Your task to perform on an android device: Add bose soundlink mini to the cart on walmart Image 0: 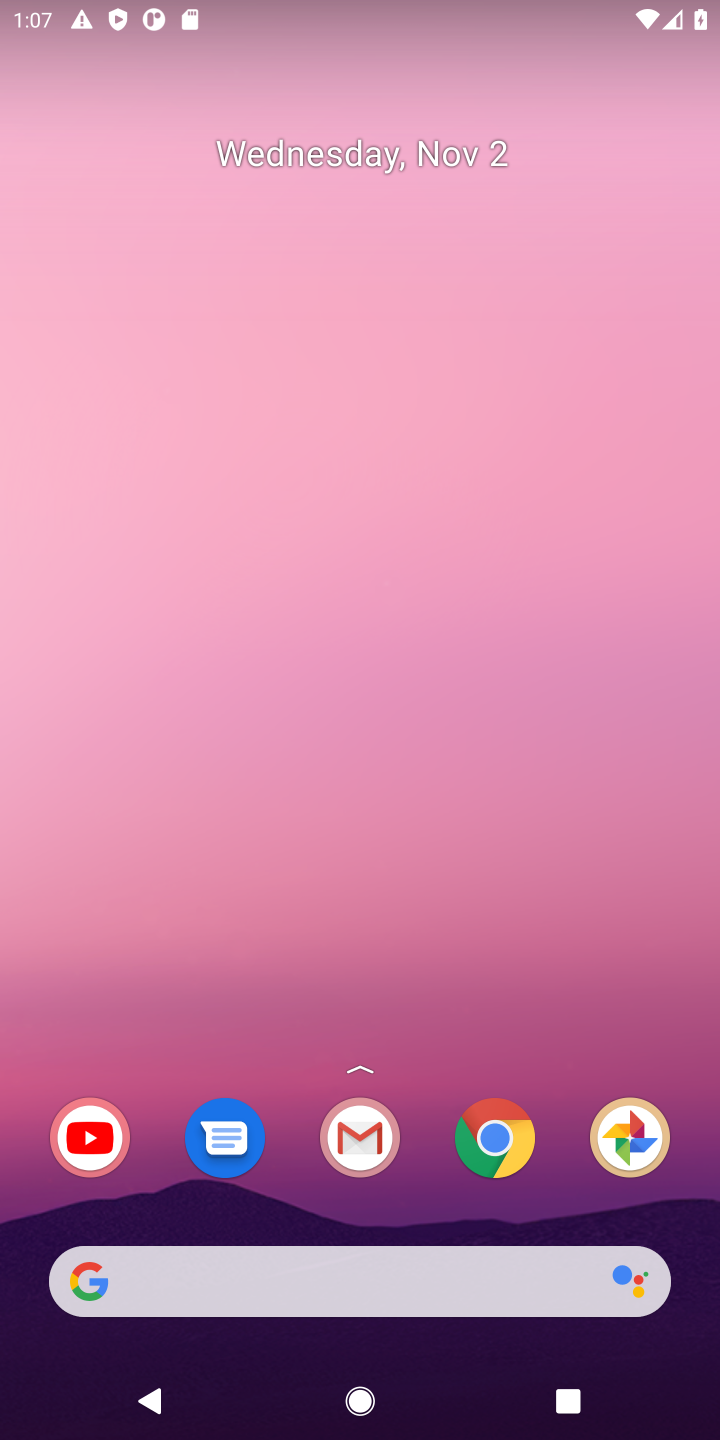
Step 0: press home button
Your task to perform on an android device: Add bose soundlink mini to the cart on walmart Image 1: 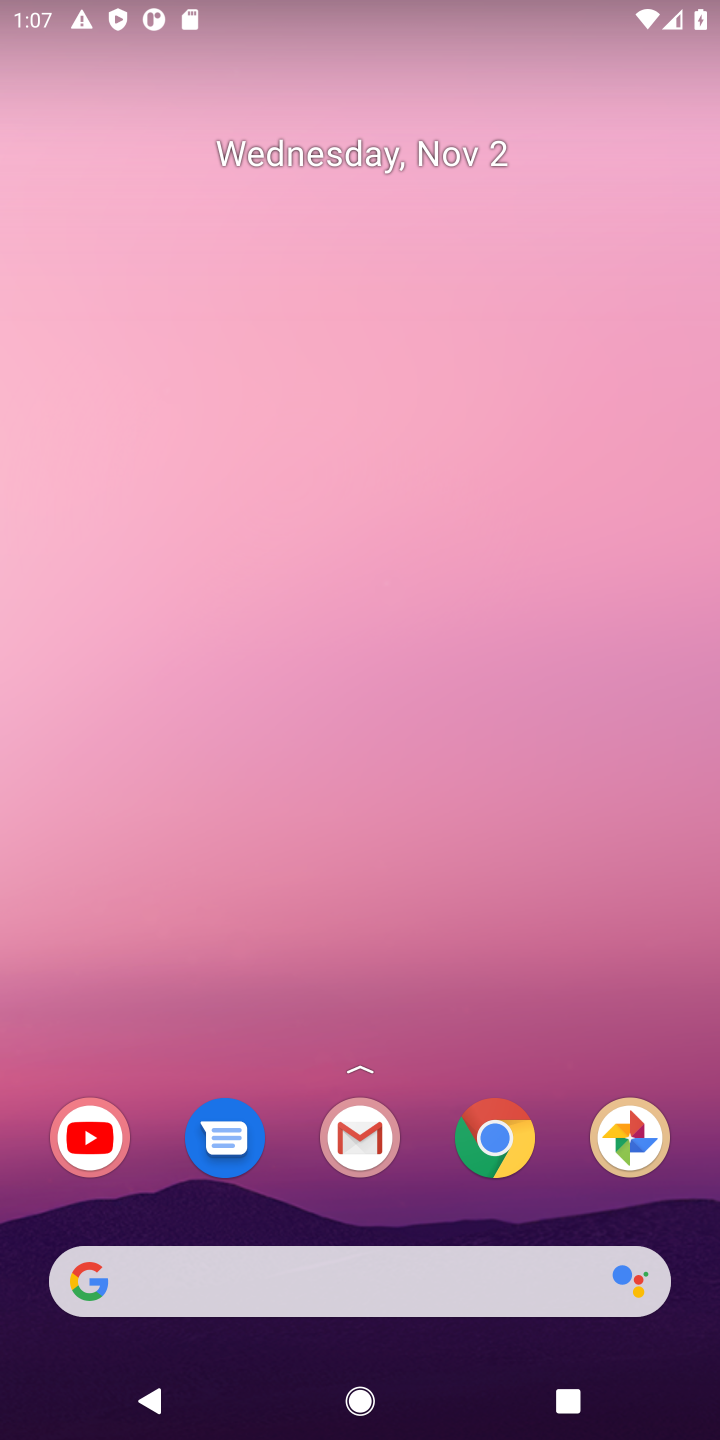
Step 1: click (133, 1279)
Your task to perform on an android device: Add bose soundlink mini to the cart on walmart Image 2: 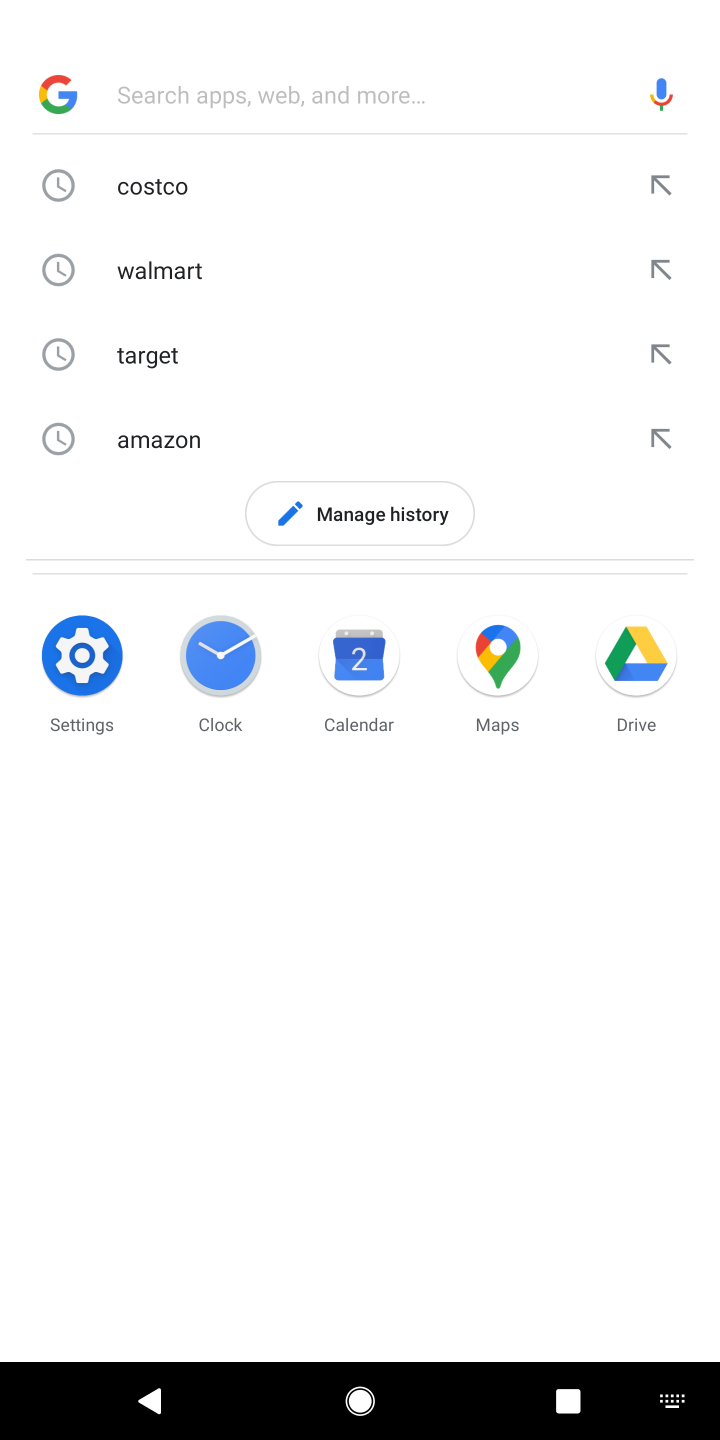
Step 2: press enter
Your task to perform on an android device: Add bose soundlink mini to the cart on walmart Image 3: 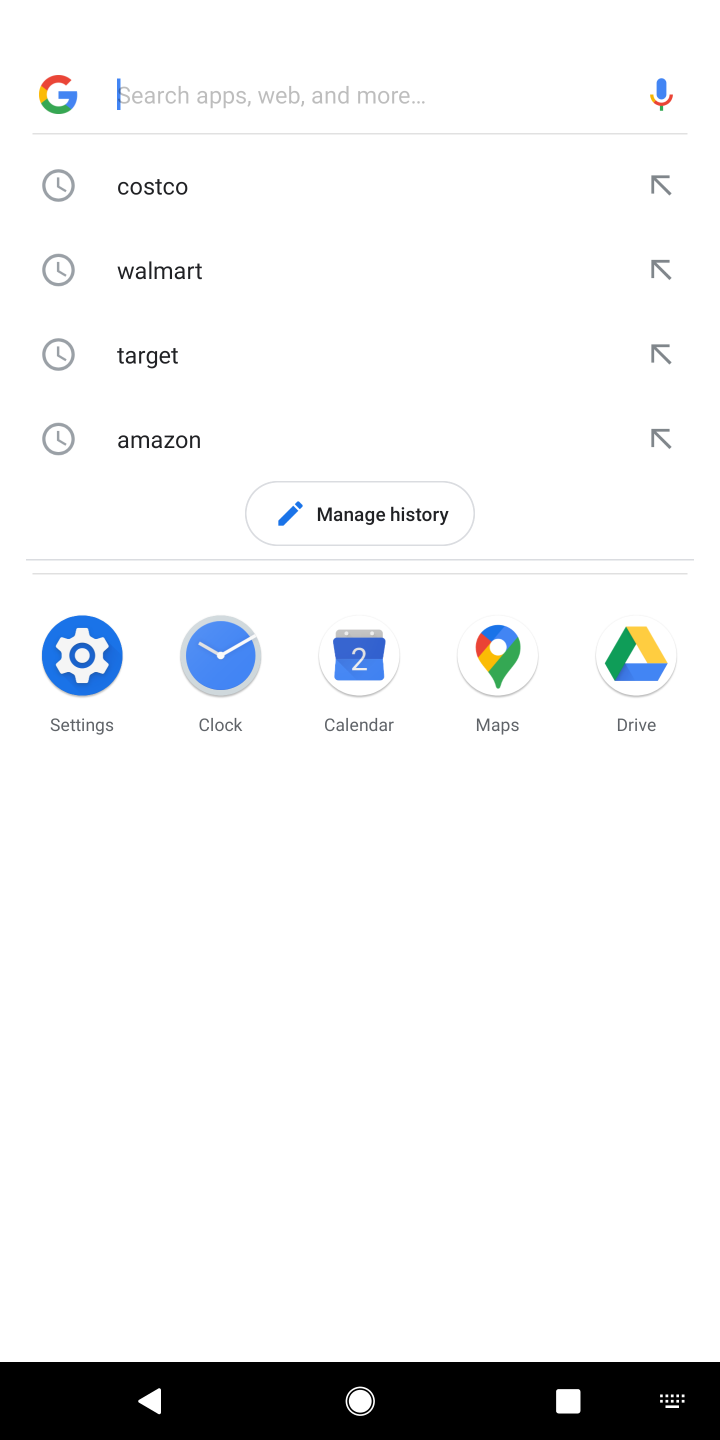
Step 3: type "walmart"
Your task to perform on an android device: Add bose soundlink mini to the cart on walmart Image 4: 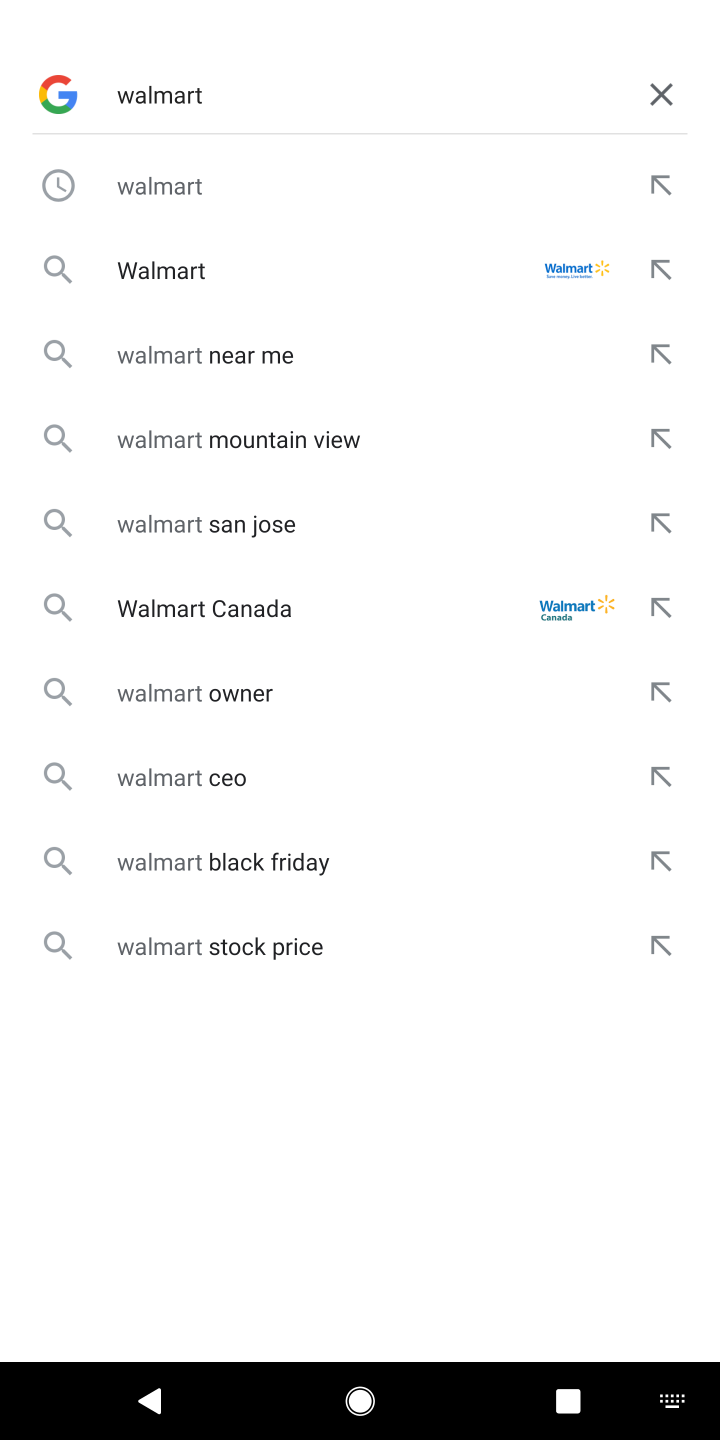
Step 4: press enter
Your task to perform on an android device: Add bose soundlink mini to the cart on walmart Image 5: 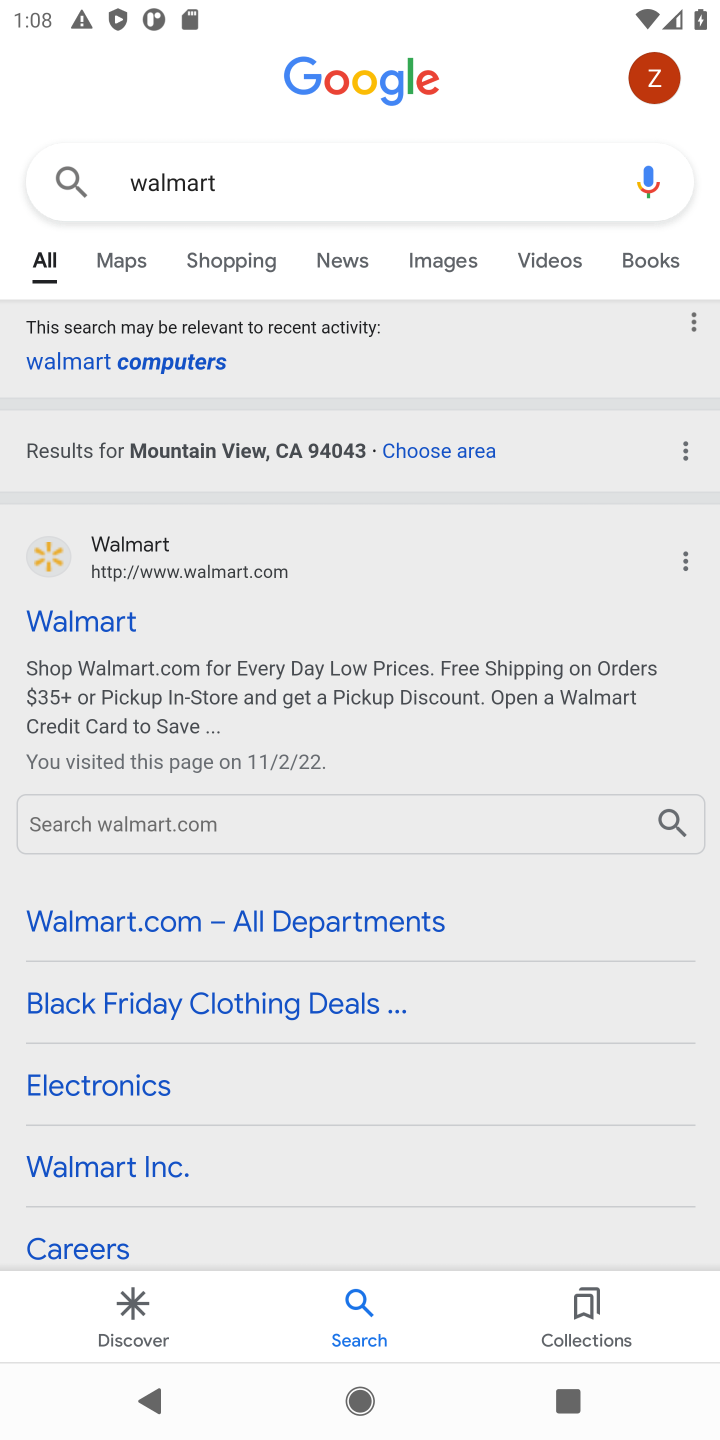
Step 5: click (88, 619)
Your task to perform on an android device: Add bose soundlink mini to the cart on walmart Image 6: 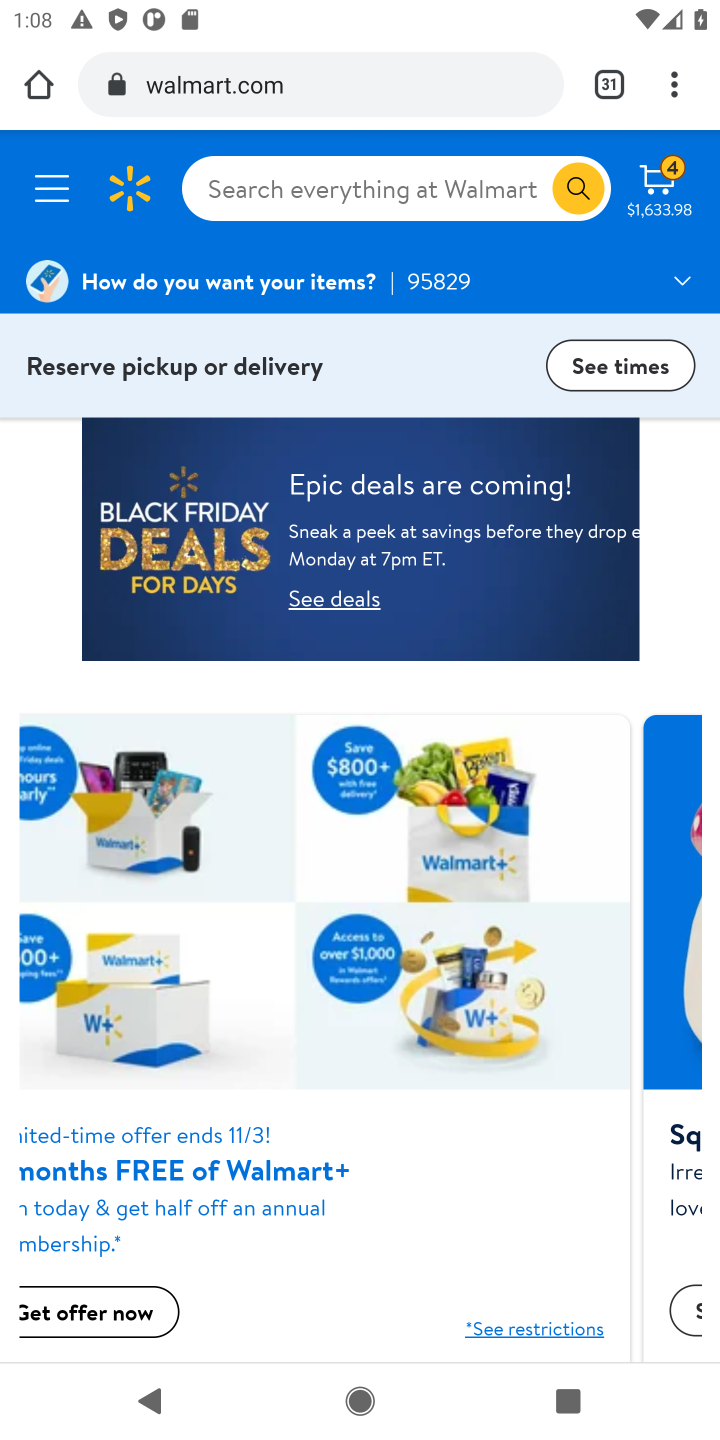
Step 6: click (268, 184)
Your task to perform on an android device: Add bose soundlink mini to the cart on walmart Image 7: 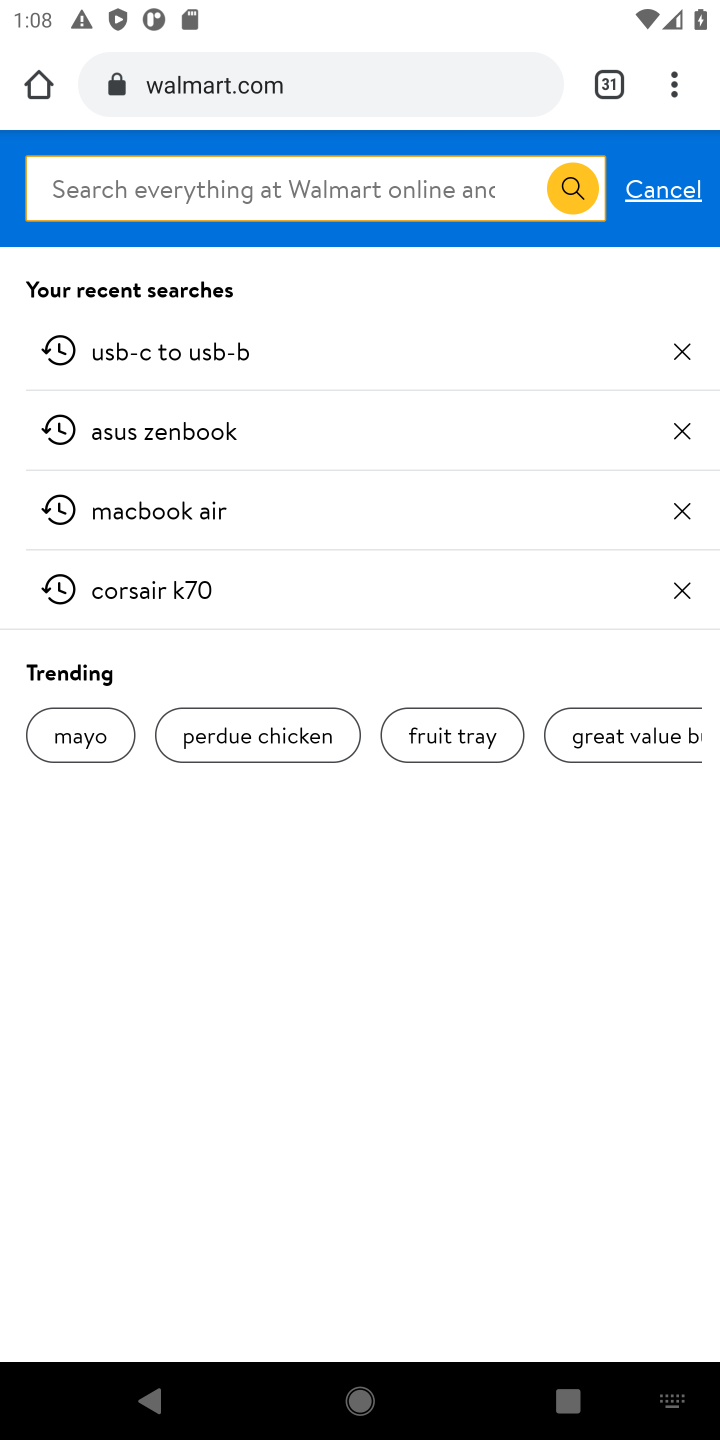
Step 7: type "bose soundlink mini "
Your task to perform on an android device: Add bose soundlink mini to the cart on walmart Image 8: 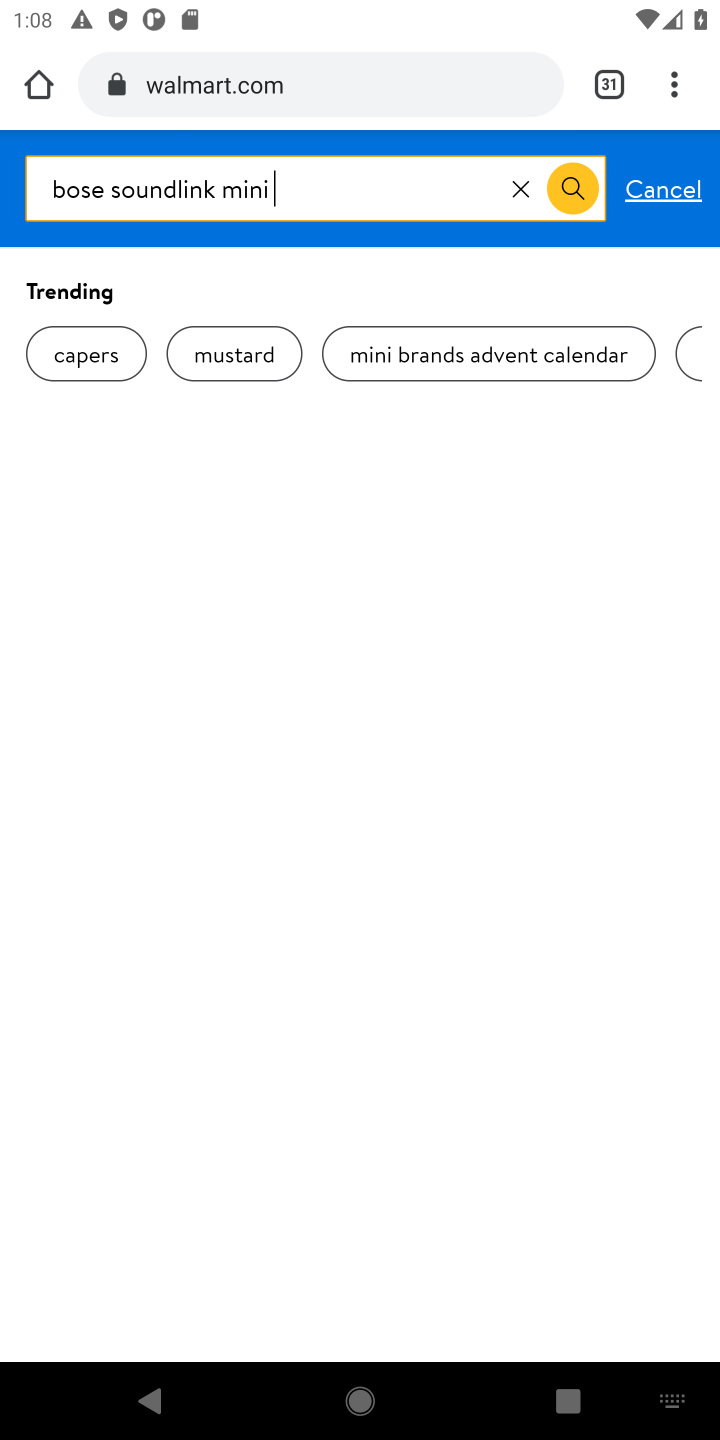
Step 8: press enter
Your task to perform on an android device: Add bose soundlink mini to the cart on walmart Image 9: 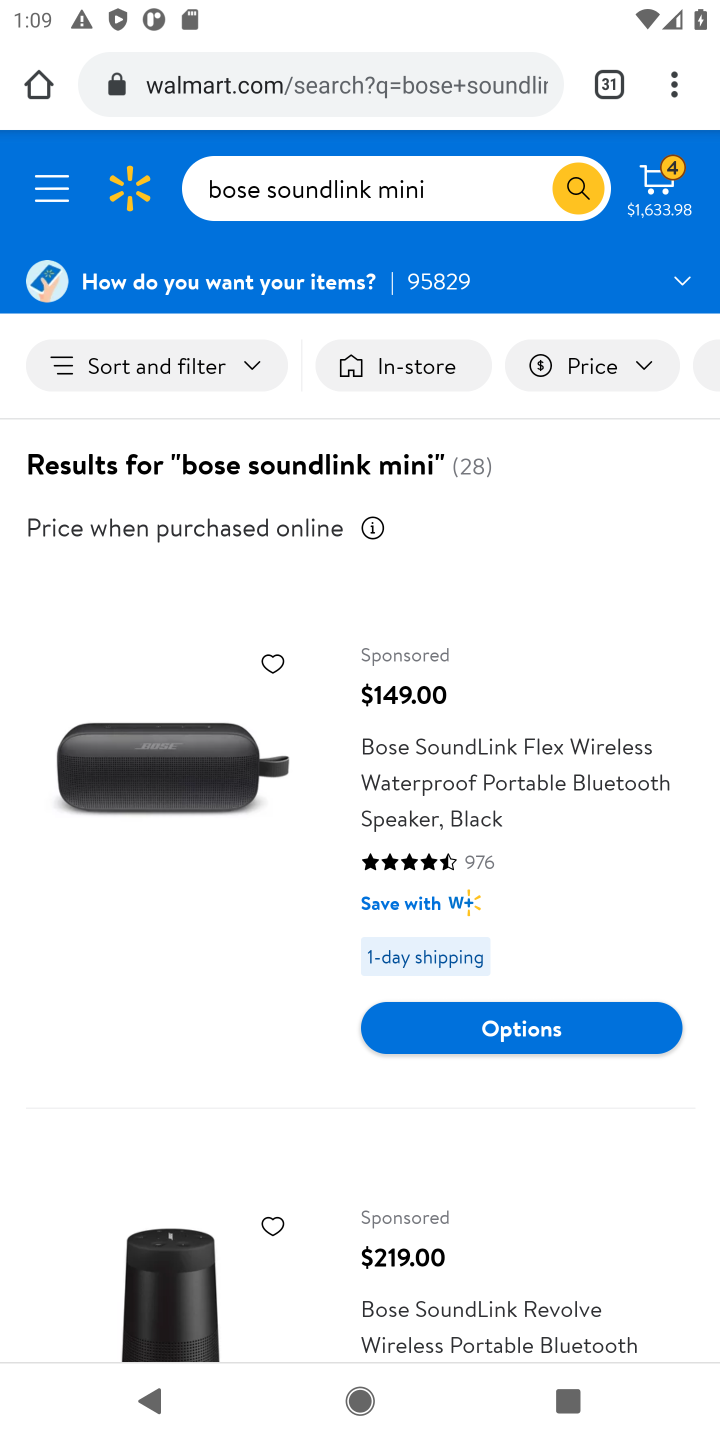
Step 9: click (479, 777)
Your task to perform on an android device: Add bose soundlink mini to the cart on walmart Image 10: 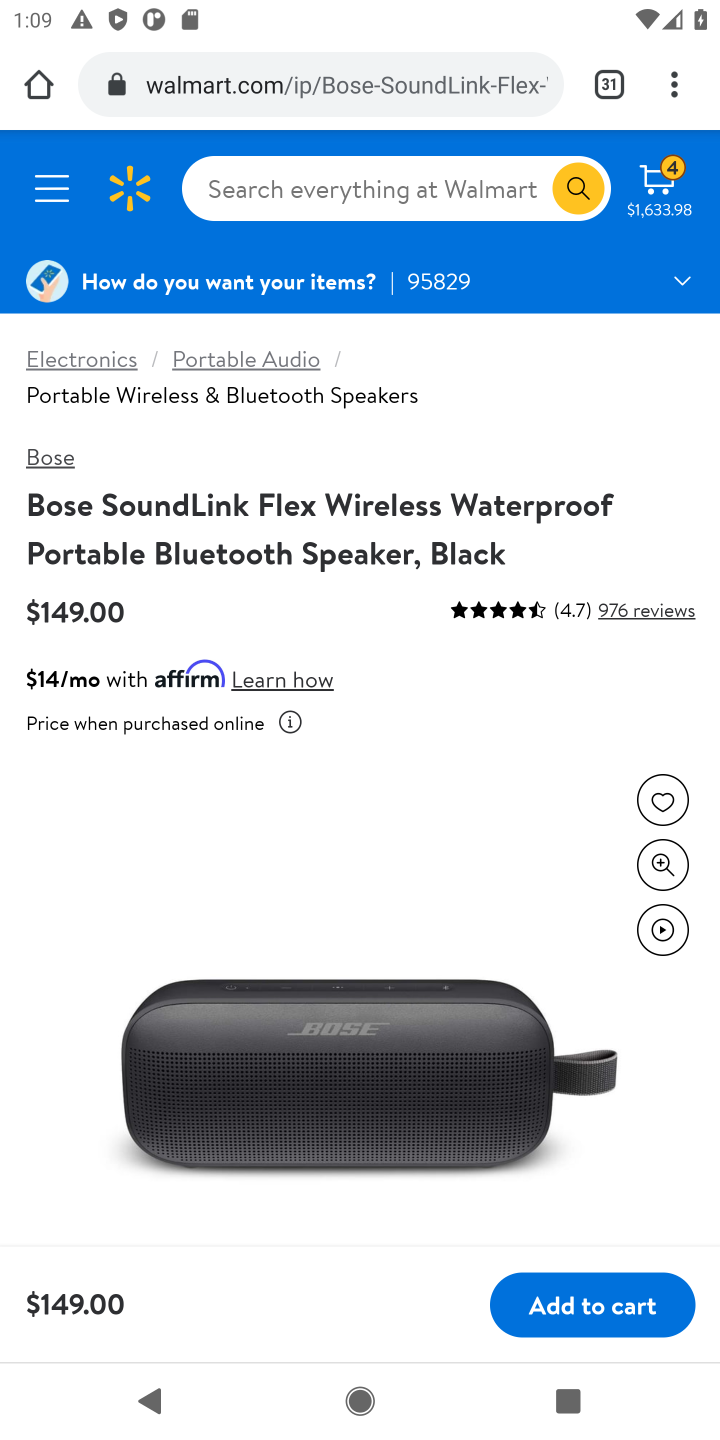
Step 10: click (572, 1309)
Your task to perform on an android device: Add bose soundlink mini to the cart on walmart Image 11: 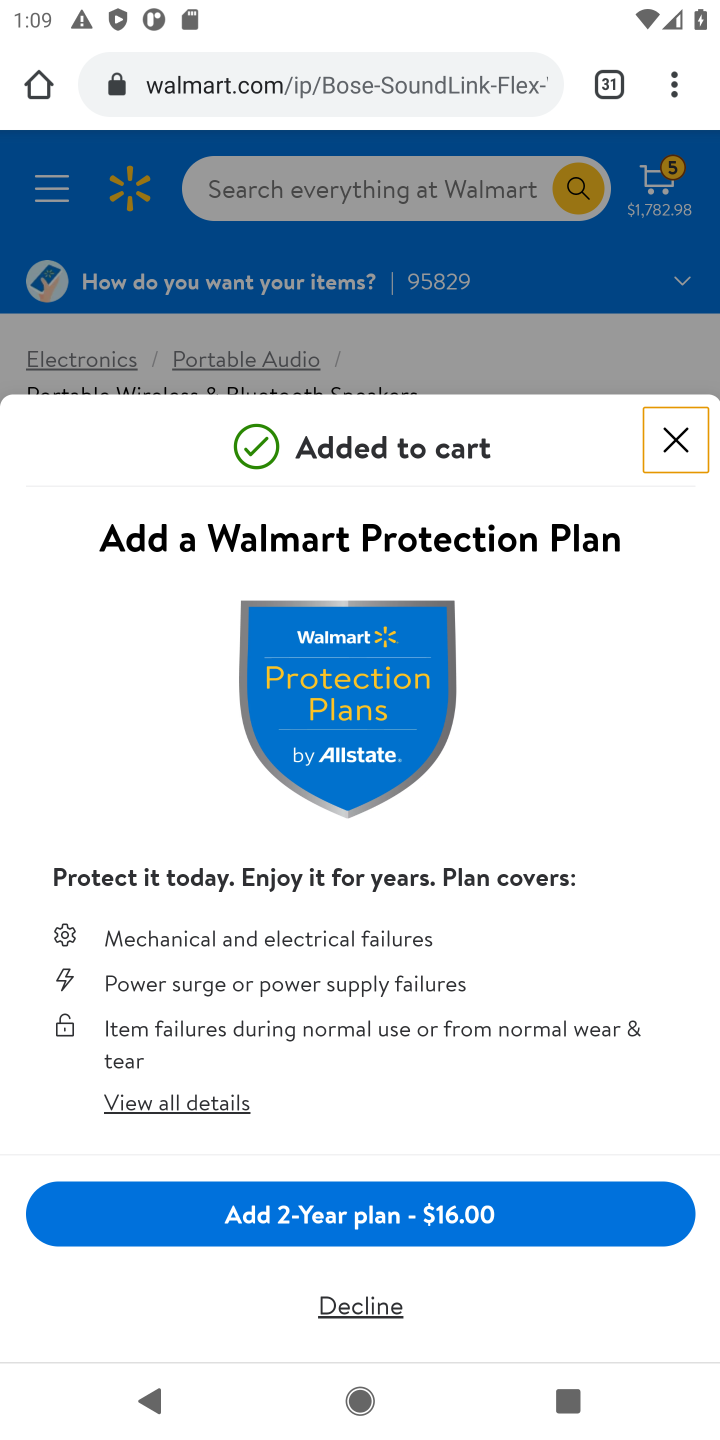
Step 11: click (358, 1304)
Your task to perform on an android device: Add bose soundlink mini to the cart on walmart Image 12: 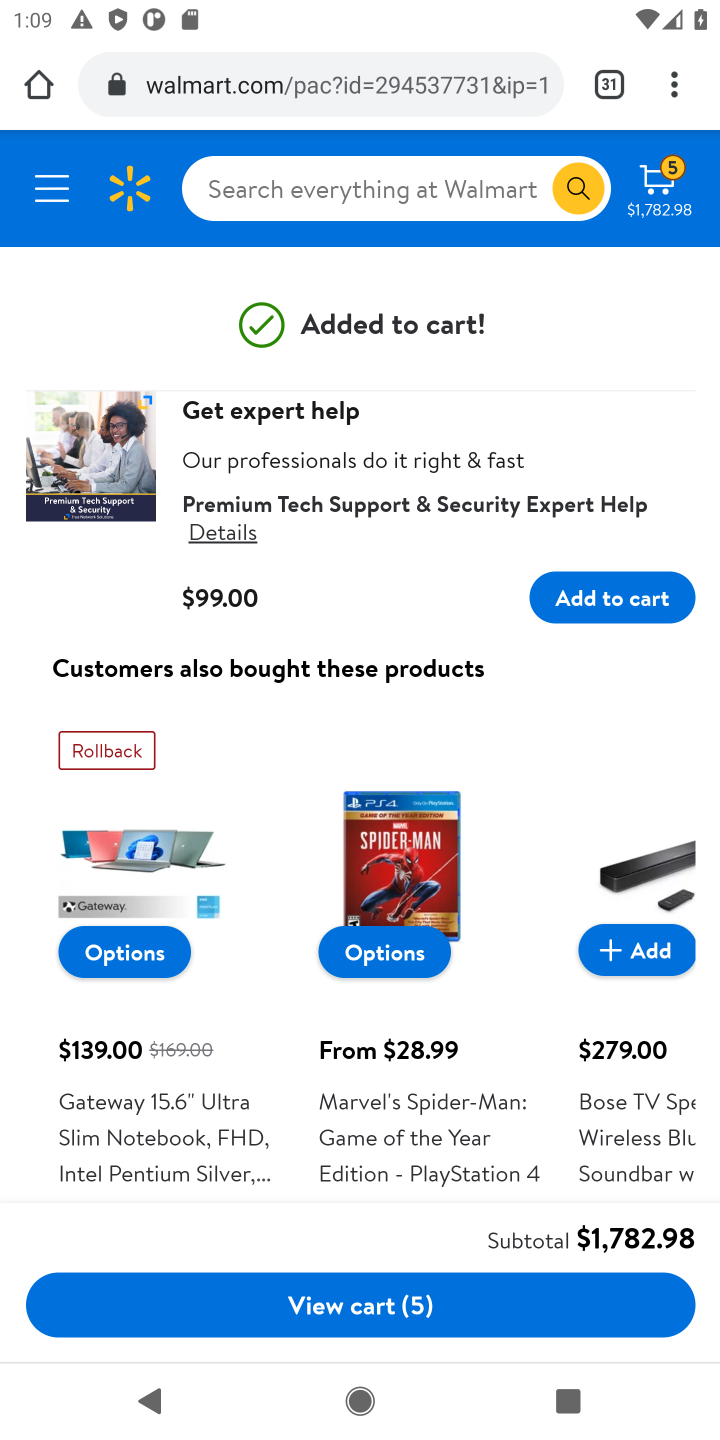
Step 12: task complete